Your task to perform on an android device: Open Google Chrome Image 0: 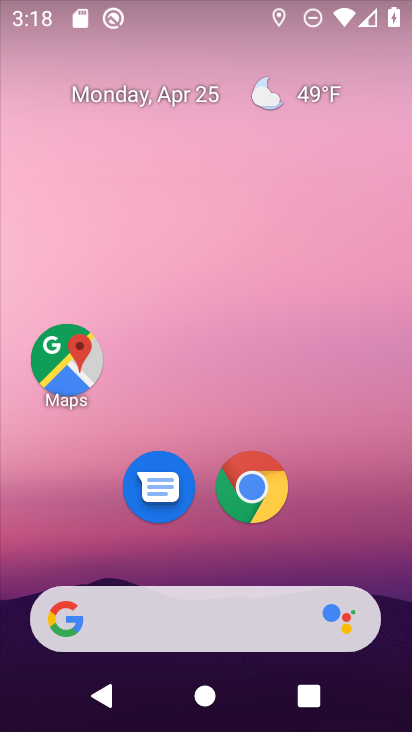
Step 0: click (255, 481)
Your task to perform on an android device: Open Google Chrome Image 1: 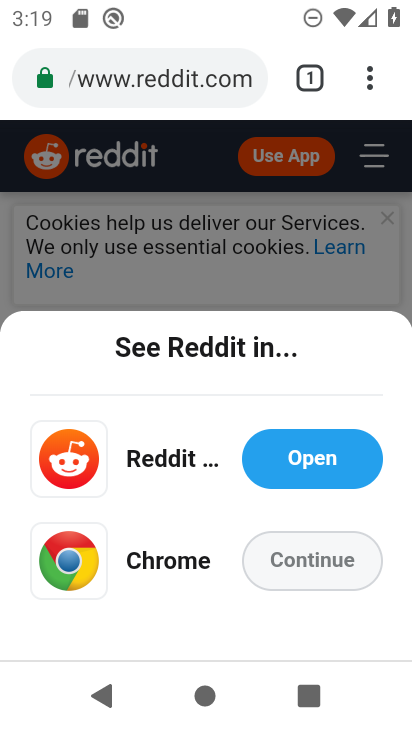
Step 1: task complete